Your task to perform on an android device: change the clock display to show seconds Image 0: 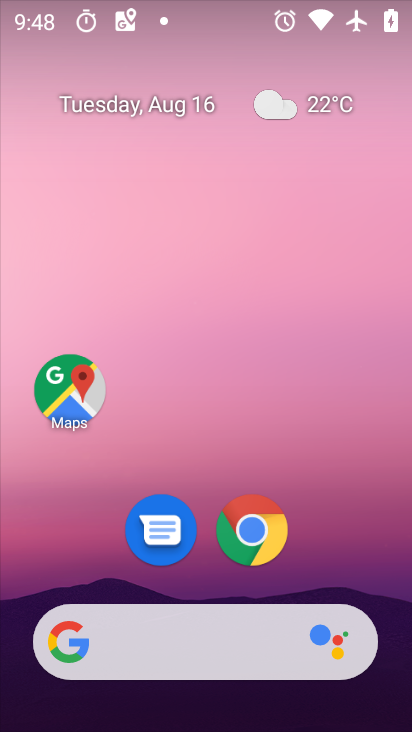
Step 0: drag from (338, 569) to (330, 160)
Your task to perform on an android device: change the clock display to show seconds Image 1: 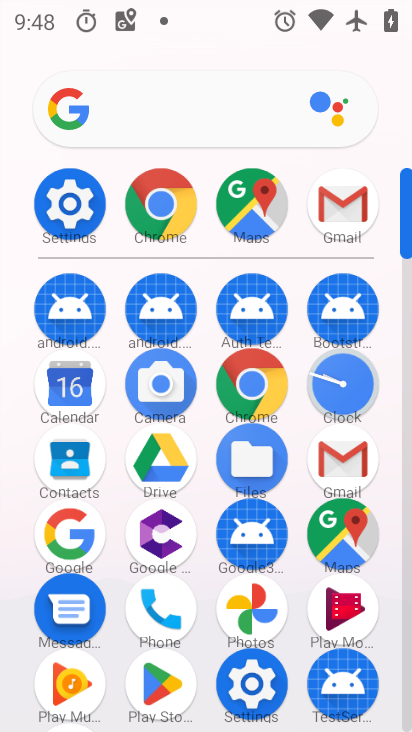
Step 1: click (355, 372)
Your task to perform on an android device: change the clock display to show seconds Image 2: 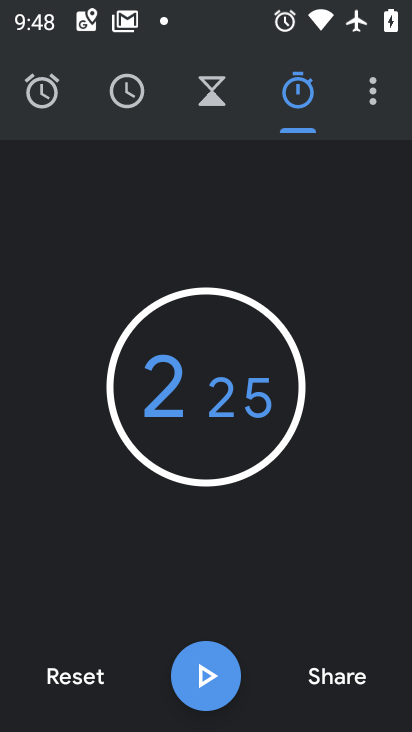
Step 2: click (383, 98)
Your task to perform on an android device: change the clock display to show seconds Image 3: 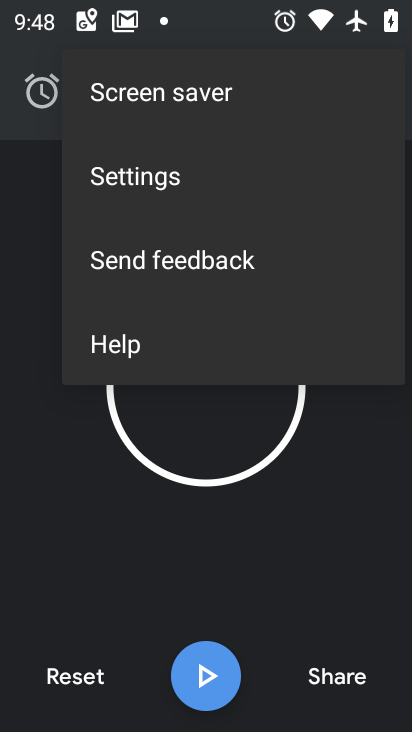
Step 3: click (205, 202)
Your task to perform on an android device: change the clock display to show seconds Image 4: 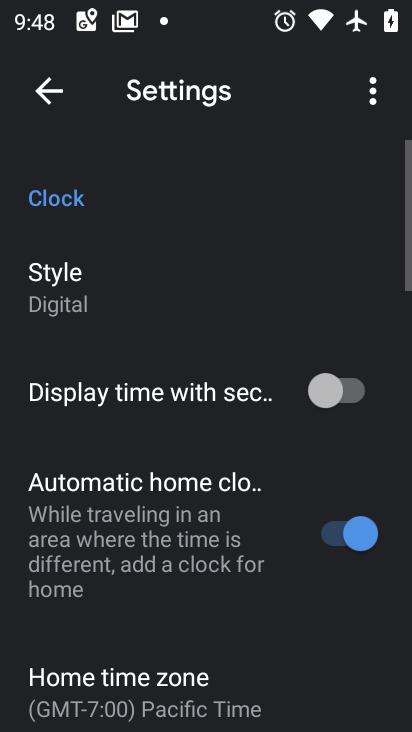
Step 4: click (354, 374)
Your task to perform on an android device: change the clock display to show seconds Image 5: 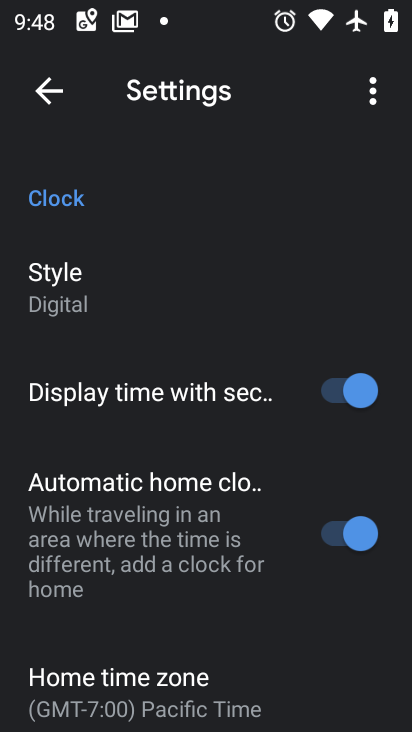
Step 5: task complete